Your task to perform on an android device: find photos in the google photos app Image 0: 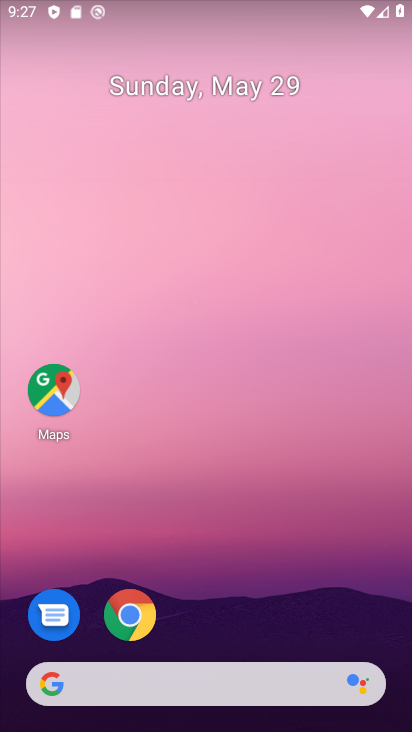
Step 0: drag from (222, 640) to (153, 63)
Your task to perform on an android device: find photos in the google photos app Image 1: 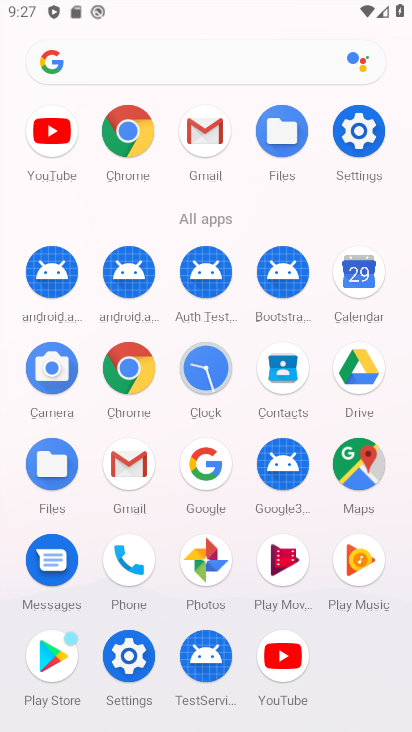
Step 1: click (199, 565)
Your task to perform on an android device: find photos in the google photos app Image 2: 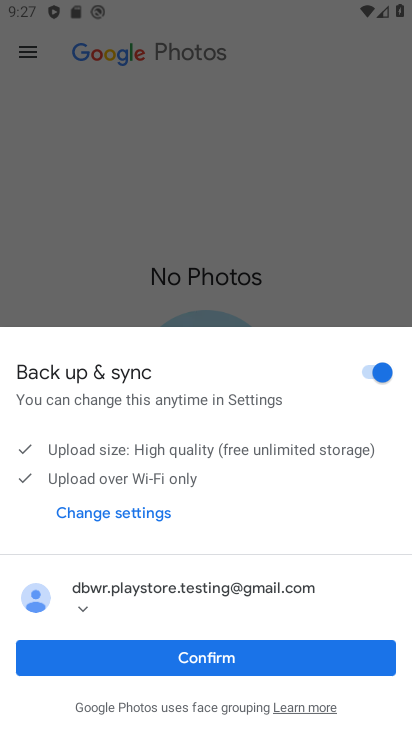
Step 2: click (215, 661)
Your task to perform on an android device: find photos in the google photos app Image 3: 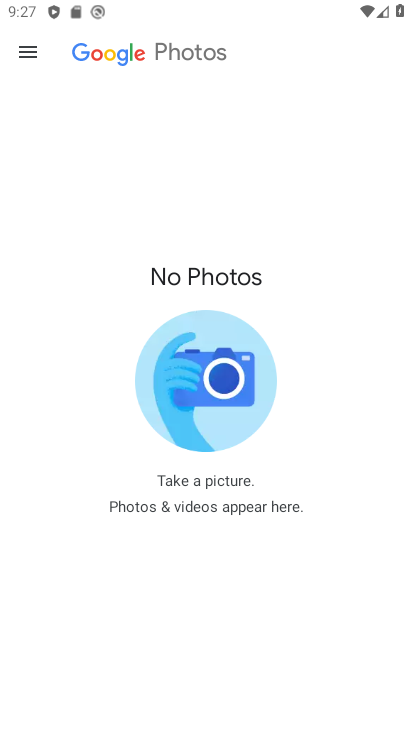
Step 3: task complete